Your task to perform on an android device: change the clock display to digital Image 0: 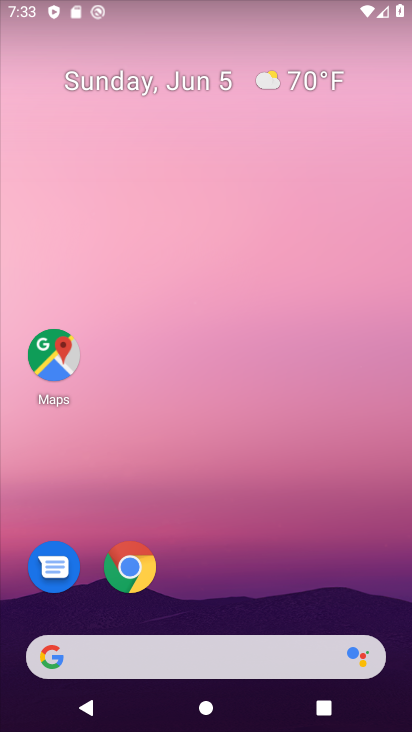
Step 0: drag from (202, 578) to (200, 0)
Your task to perform on an android device: change the clock display to digital Image 1: 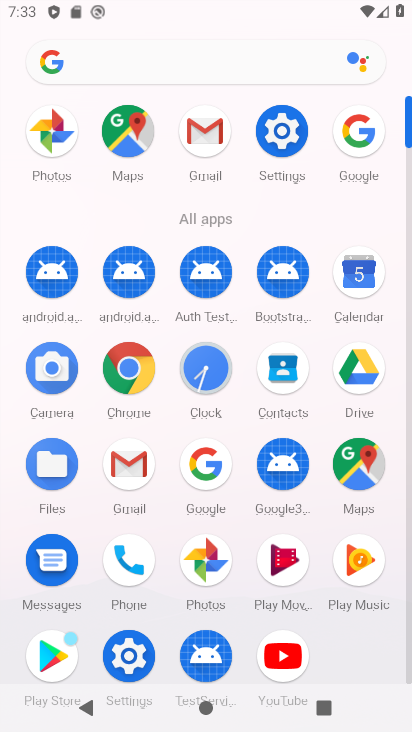
Step 1: click (282, 133)
Your task to perform on an android device: change the clock display to digital Image 2: 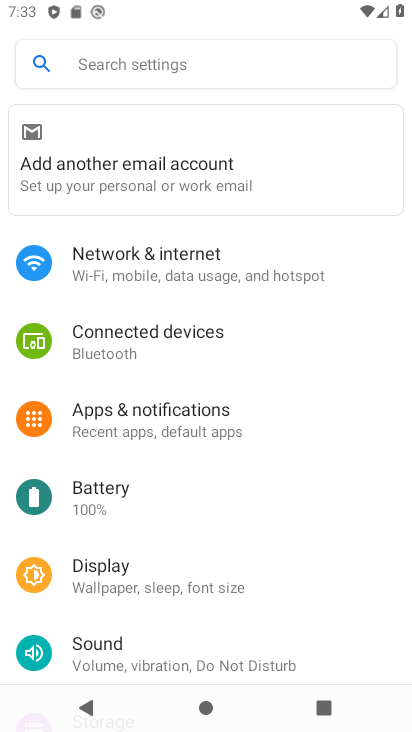
Step 2: press back button
Your task to perform on an android device: change the clock display to digital Image 3: 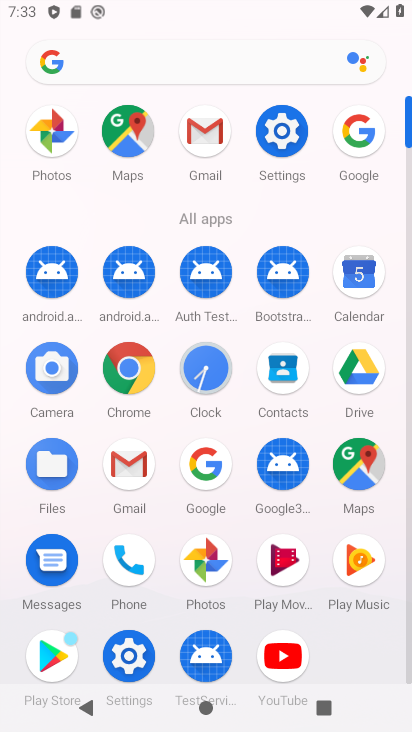
Step 3: click (197, 368)
Your task to perform on an android device: change the clock display to digital Image 4: 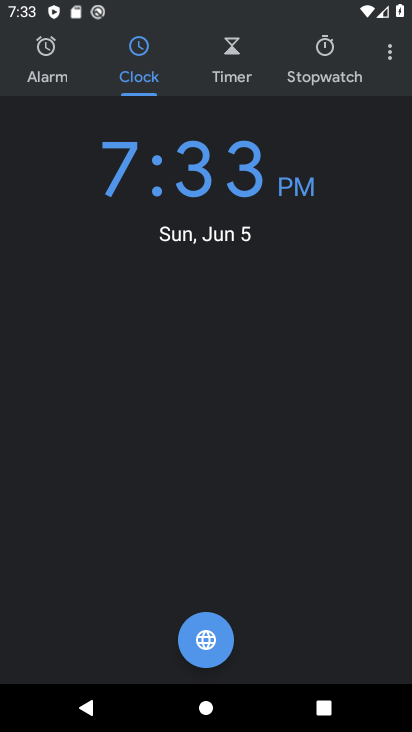
Step 4: click (396, 49)
Your task to perform on an android device: change the clock display to digital Image 5: 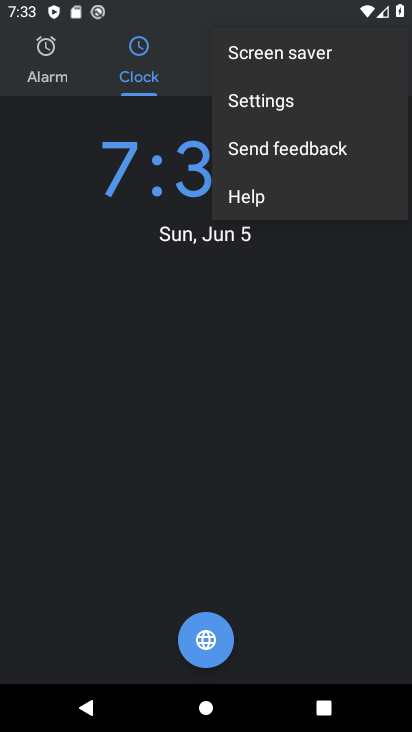
Step 5: click (289, 99)
Your task to perform on an android device: change the clock display to digital Image 6: 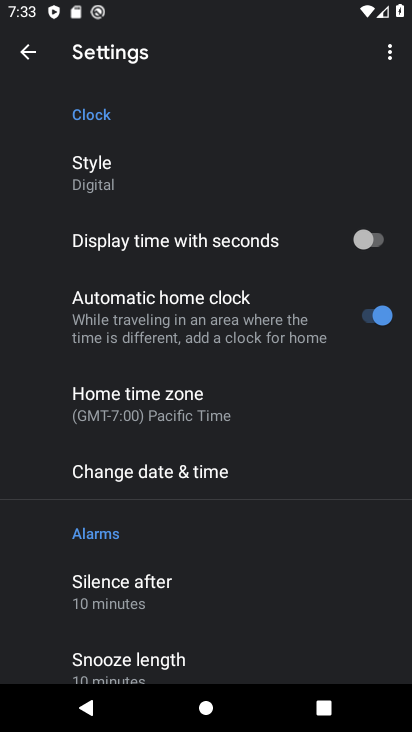
Step 6: task complete